Your task to perform on an android device: Go to Android settings Image 0: 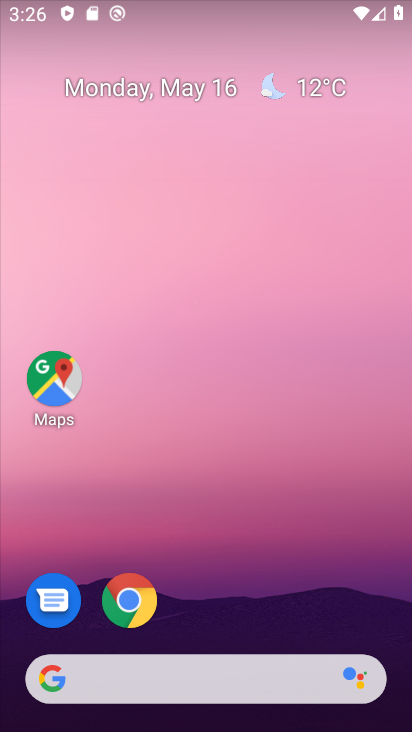
Step 0: drag from (224, 663) to (196, 343)
Your task to perform on an android device: Go to Android settings Image 1: 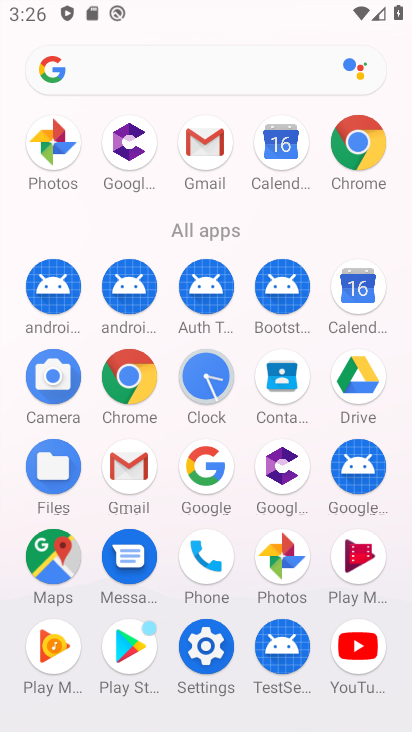
Step 1: click (205, 653)
Your task to perform on an android device: Go to Android settings Image 2: 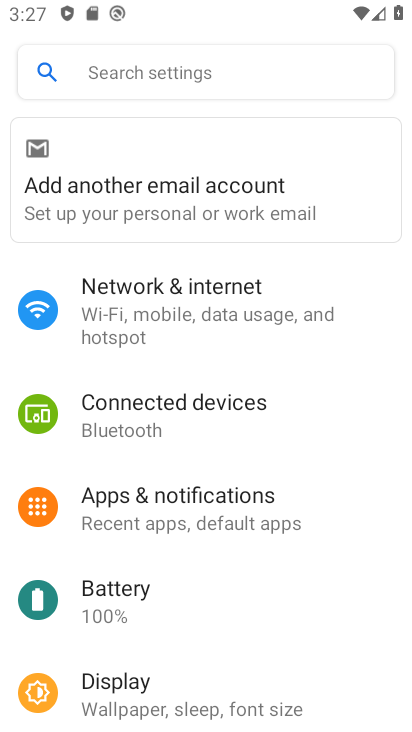
Step 2: task complete